Your task to perform on an android device: Show me the alarms in the clock app Image 0: 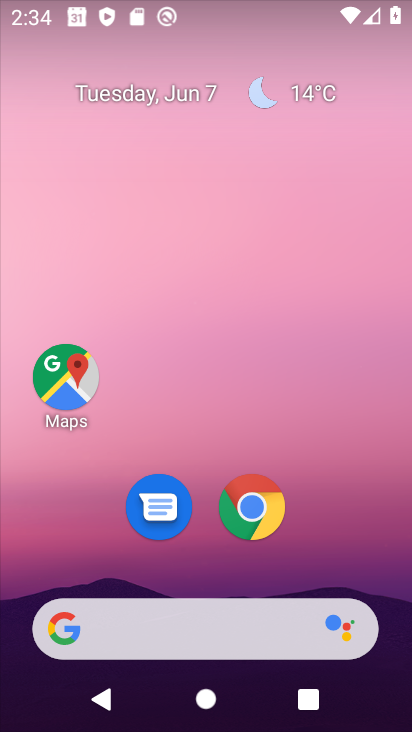
Step 0: drag from (337, 481) to (254, 8)
Your task to perform on an android device: Show me the alarms in the clock app Image 1: 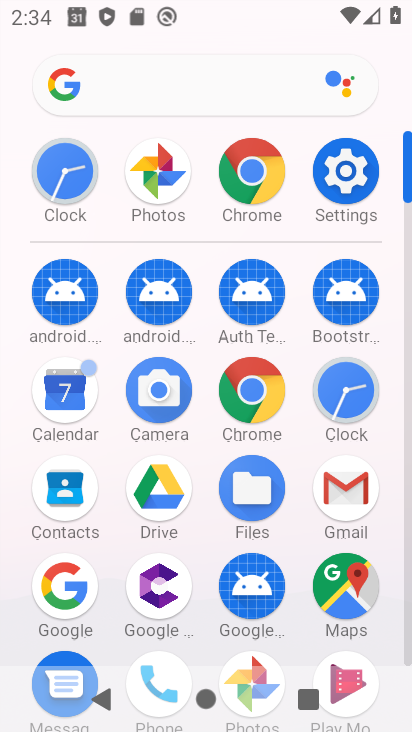
Step 1: click (342, 380)
Your task to perform on an android device: Show me the alarms in the clock app Image 2: 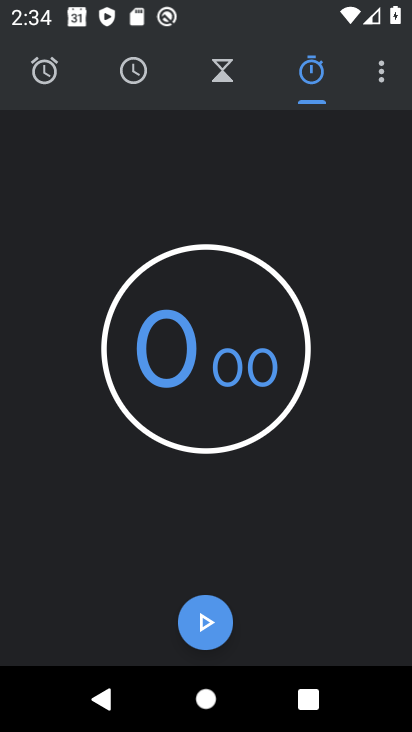
Step 2: click (382, 76)
Your task to perform on an android device: Show me the alarms in the clock app Image 3: 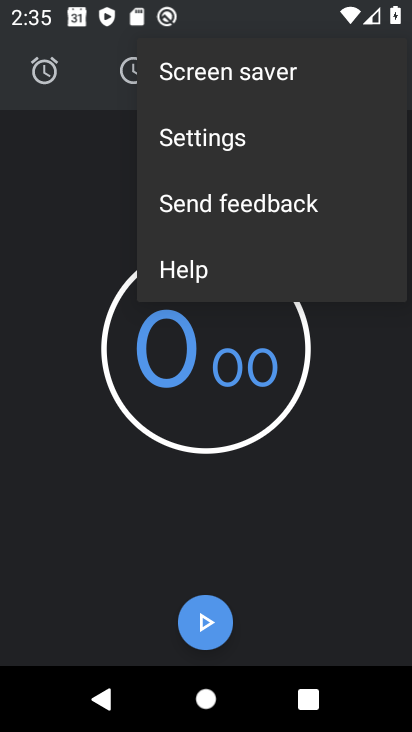
Step 3: click (309, 490)
Your task to perform on an android device: Show me the alarms in the clock app Image 4: 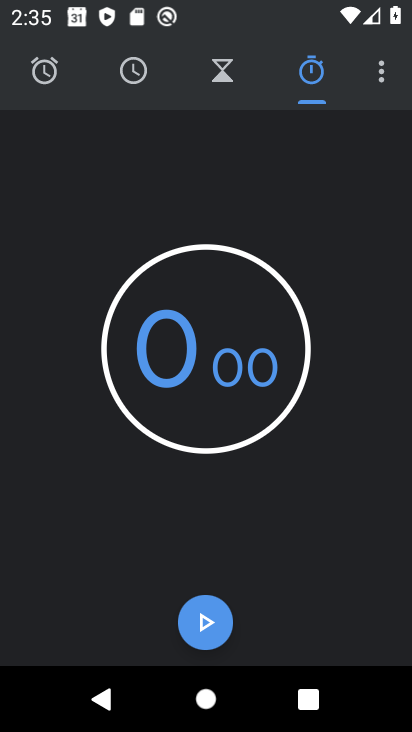
Step 4: click (51, 55)
Your task to perform on an android device: Show me the alarms in the clock app Image 5: 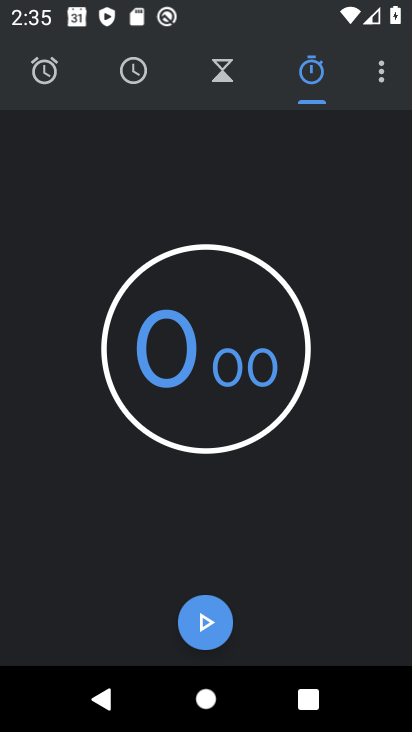
Step 5: click (51, 55)
Your task to perform on an android device: Show me the alarms in the clock app Image 6: 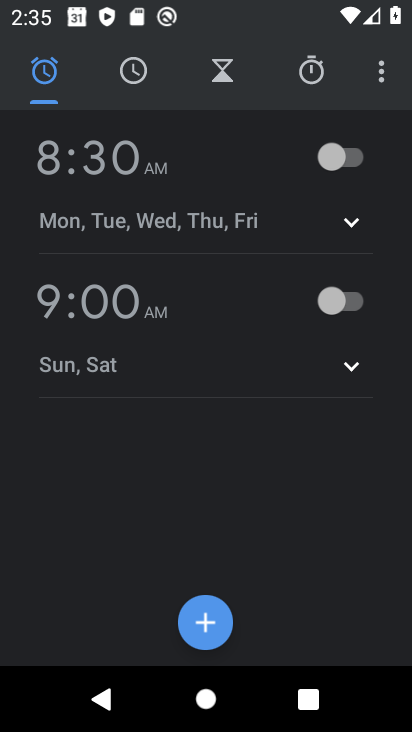
Step 6: task complete